Your task to perform on an android device: Open Wikipedia Image 0: 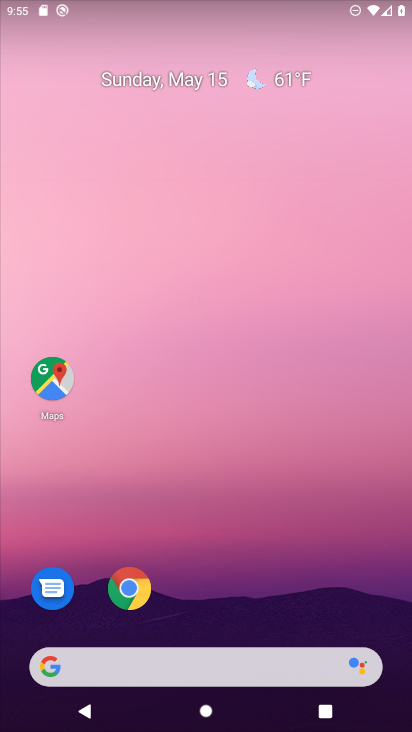
Step 0: click (131, 573)
Your task to perform on an android device: Open Wikipedia Image 1: 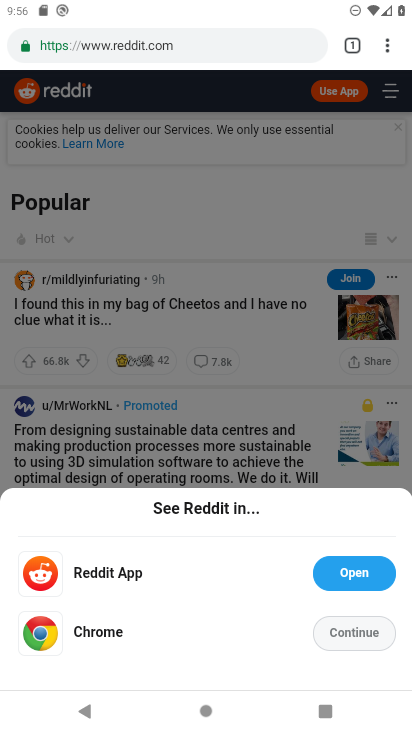
Step 1: click (201, 37)
Your task to perform on an android device: Open Wikipedia Image 2: 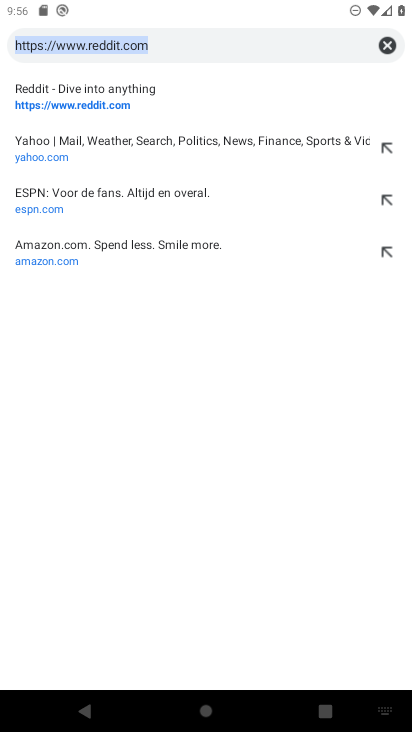
Step 2: type "wikipedia"
Your task to perform on an android device: Open Wikipedia Image 3: 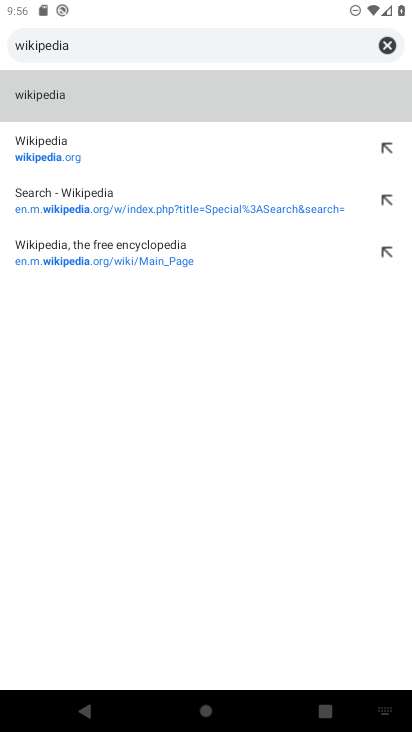
Step 3: click (139, 95)
Your task to perform on an android device: Open Wikipedia Image 4: 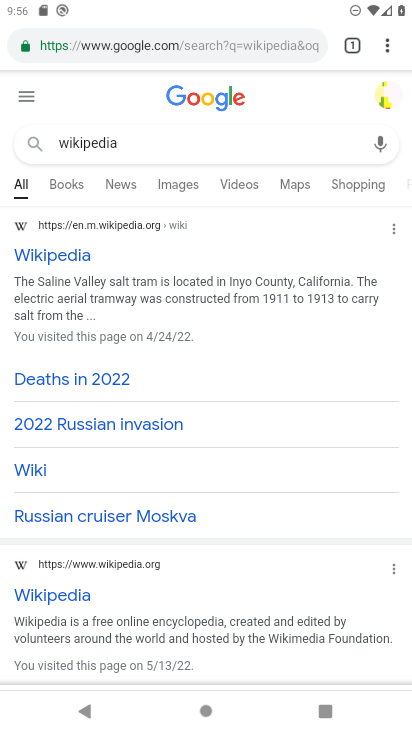
Step 4: task complete